Your task to perform on an android device: Open battery settings Image 0: 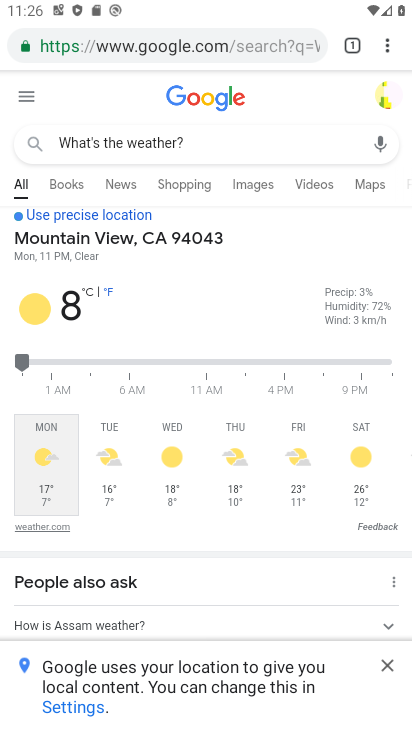
Step 0: press back button
Your task to perform on an android device: Open battery settings Image 1: 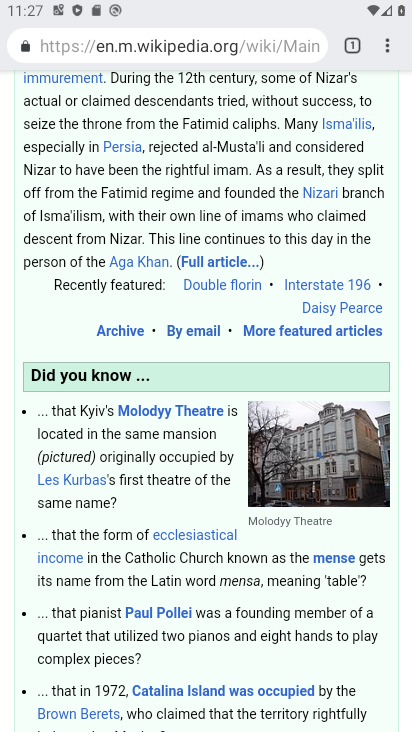
Step 1: press home button
Your task to perform on an android device: Open battery settings Image 2: 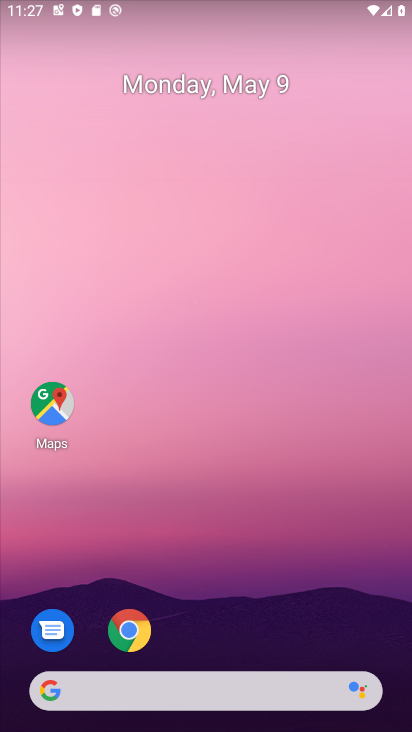
Step 2: drag from (249, 573) to (225, 1)
Your task to perform on an android device: Open battery settings Image 3: 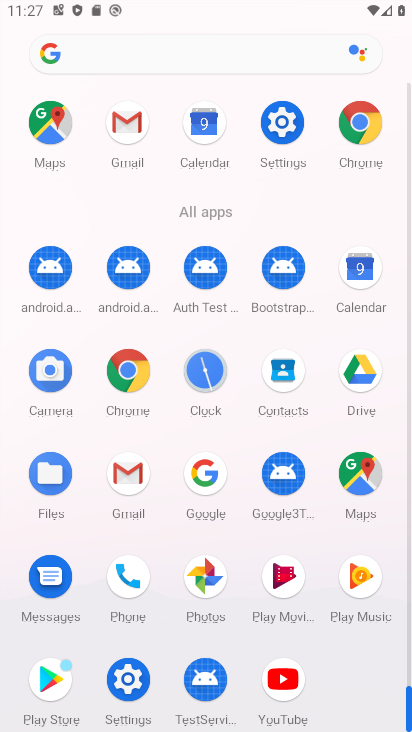
Step 3: click (279, 117)
Your task to perform on an android device: Open battery settings Image 4: 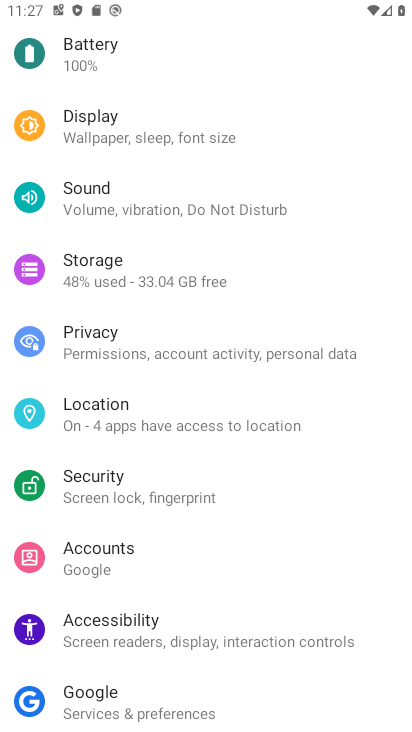
Step 4: drag from (226, 192) to (227, 587)
Your task to perform on an android device: Open battery settings Image 5: 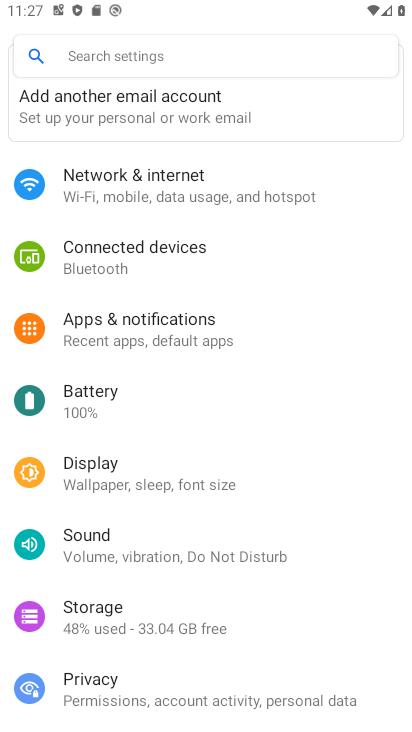
Step 5: drag from (226, 590) to (272, 199)
Your task to perform on an android device: Open battery settings Image 6: 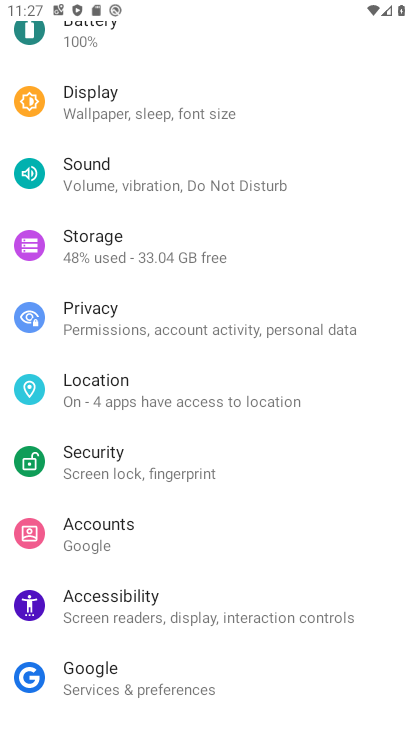
Step 6: drag from (196, 531) to (218, 158)
Your task to perform on an android device: Open battery settings Image 7: 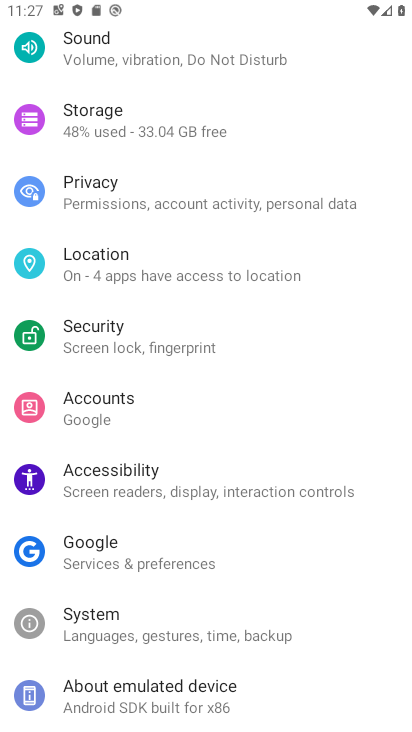
Step 7: drag from (170, 563) to (214, 137)
Your task to perform on an android device: Open battery settings Image 8: 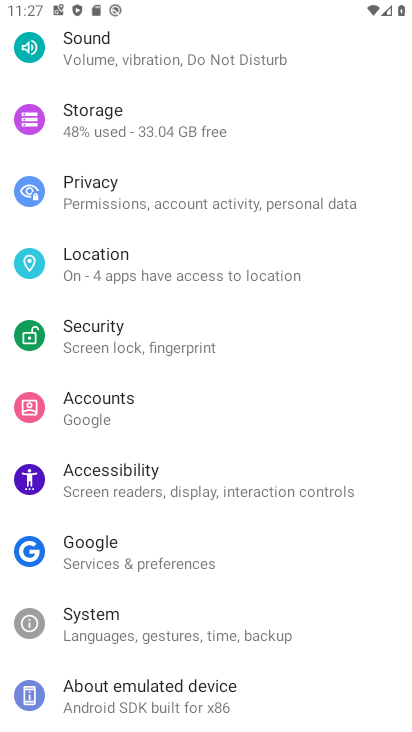
Step 8: drag from (187, 179) to (180, 504)
Your task to perform on an android device: Open battery settings Image 9: 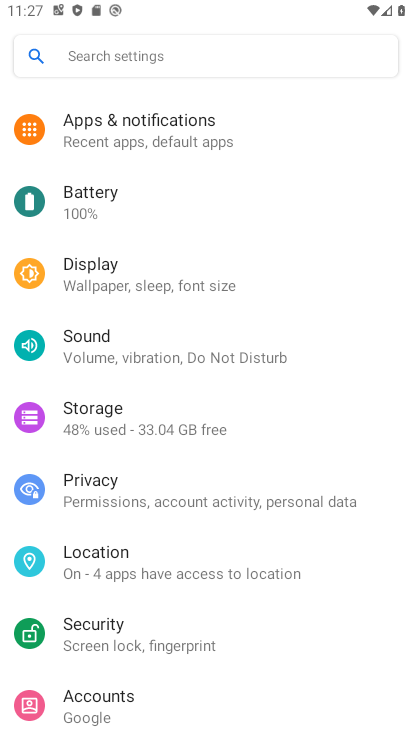
Step 9: click (130, 194)
Your task to perform on an android device: Open battery settings Image 10: 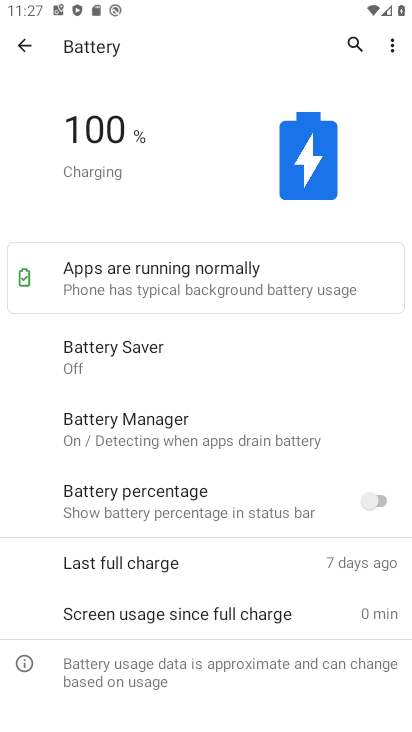
Step 10: task complete